Your task to perform on an android device: visit the assistant section in the google photos Image 0: 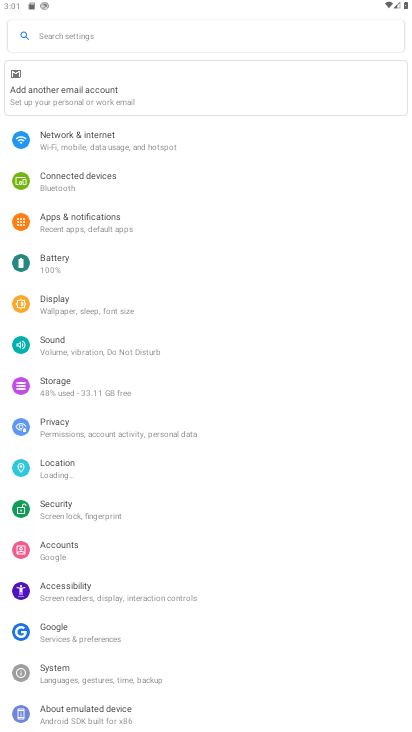
Step 0: press home button
Your task to perform on an android device: visit the assistant section in the google photos Image 1: 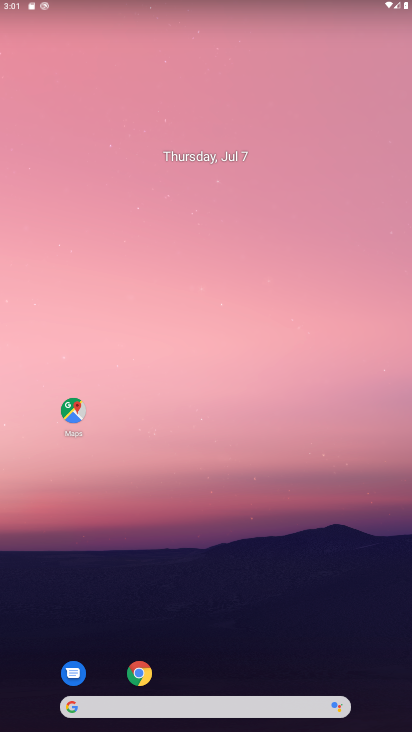
Step 1: drag from (184, 682) to (191, 138)
Your task to perform on an android device: visit the assistant section in the google photos Image 2: 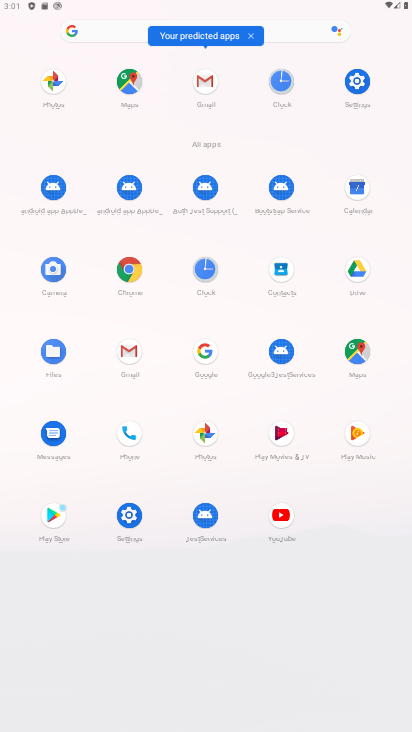
Step 2: click (193, 437)
Your task to perform on an android device: visit the assistant section in the google photos Image 3: 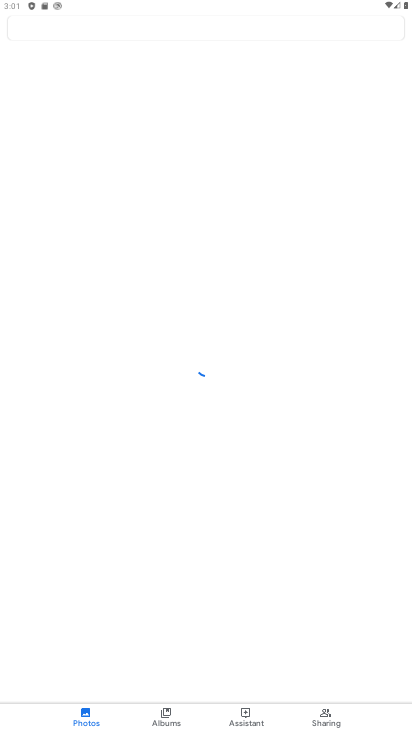
Step 3: click (244, 717)
Your task to perform on an android device: visit the assistant section in the google photos Image 4: 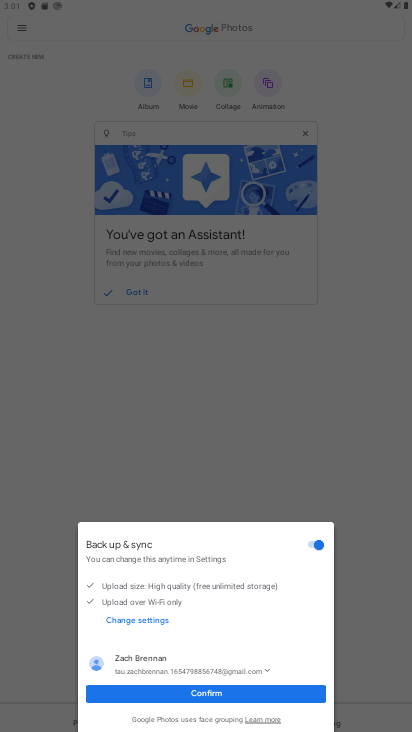
Step 4: click (204, 692)
Your task to perform on an android device: visit the assistant section in the google photos Image 5: 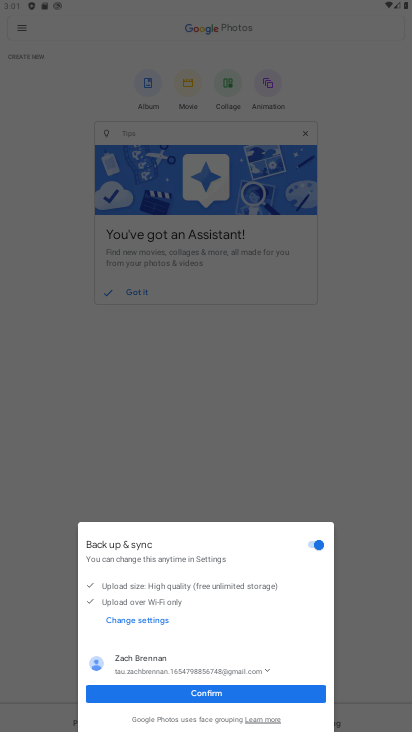
Step 5: click (204, 692)
Your task to perform on an android device: visit the assistant section in the google photos Image 6: 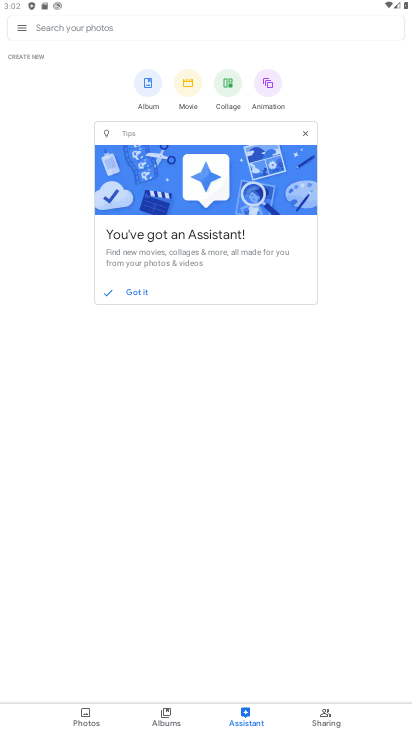
Step 6: task complete